Your task to perform on an android device: Open Google Maps Image 0: 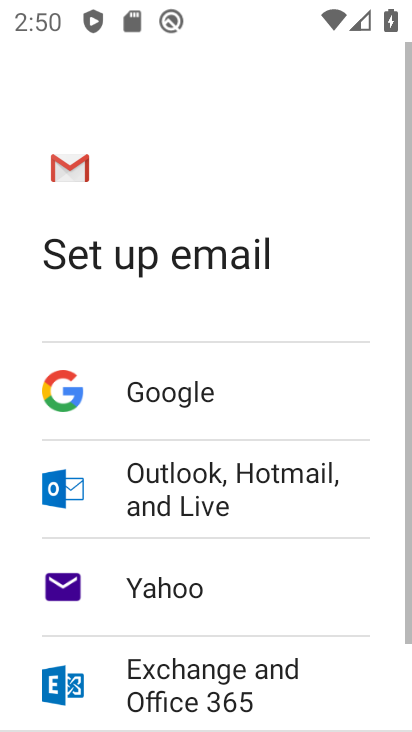
Step 0: press home button
Your task to perform on an android device: Open Google Maps Image 1: 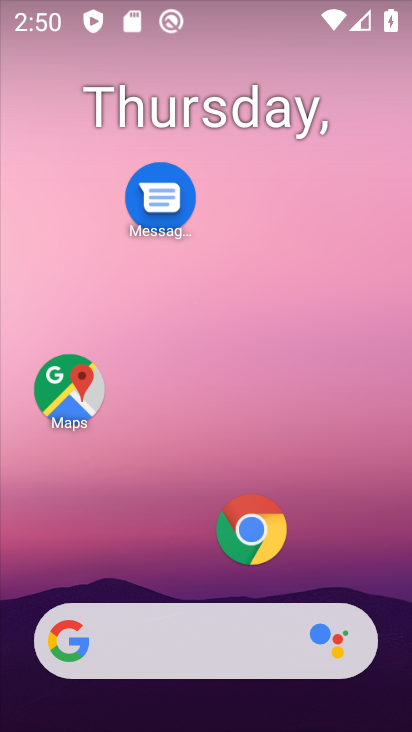
Step 1: click (75, 385)
Your task to perform on an android device: Open Google Maps Image 2: 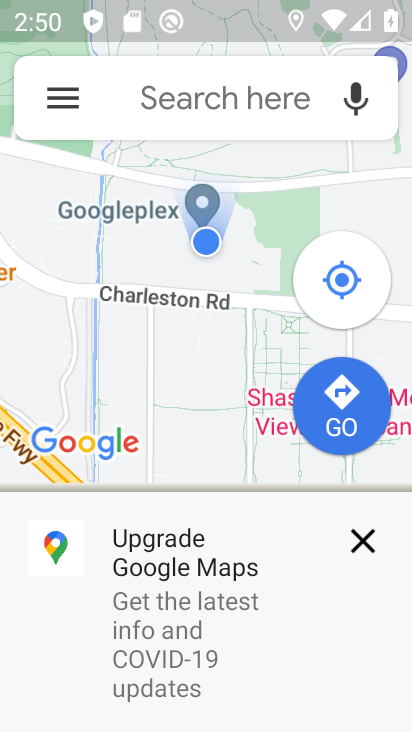
Step 2: task complete